Your task to perform on an android device: open app "AliExpress" (install if not already installed) and enter user name: "orangutan@inbox.com" and password: "Lyons" Image 0: 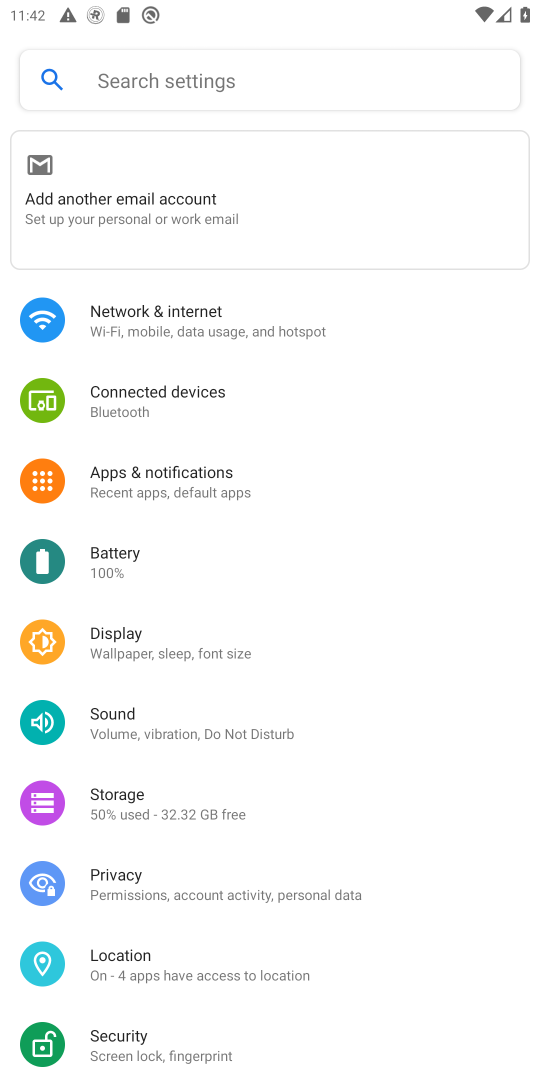
Step 0: press home button
Your task to perform on an android device: open app "AliExpress" (install if not already installed) and enter user name: "orangutan@inbox.com" and password: "Lyons" Image 1: 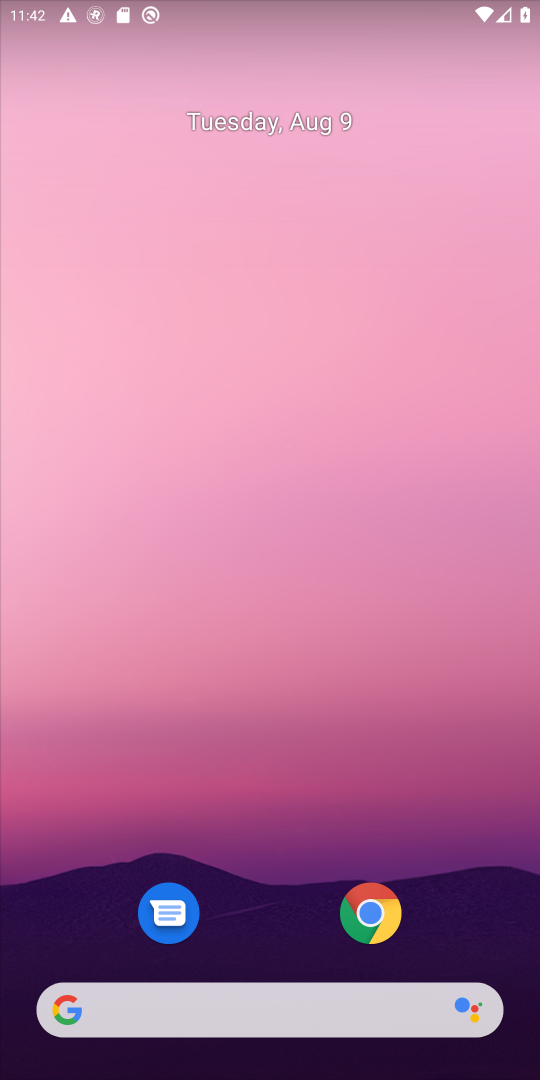
Step 1: drag from (267, 938) to (271, 393)
Your task to perform on an android device: open app "AliExpress" (install if not already installed) and enter user name: "orangutan@inbox.com" and password: "Lyons" Image 2: 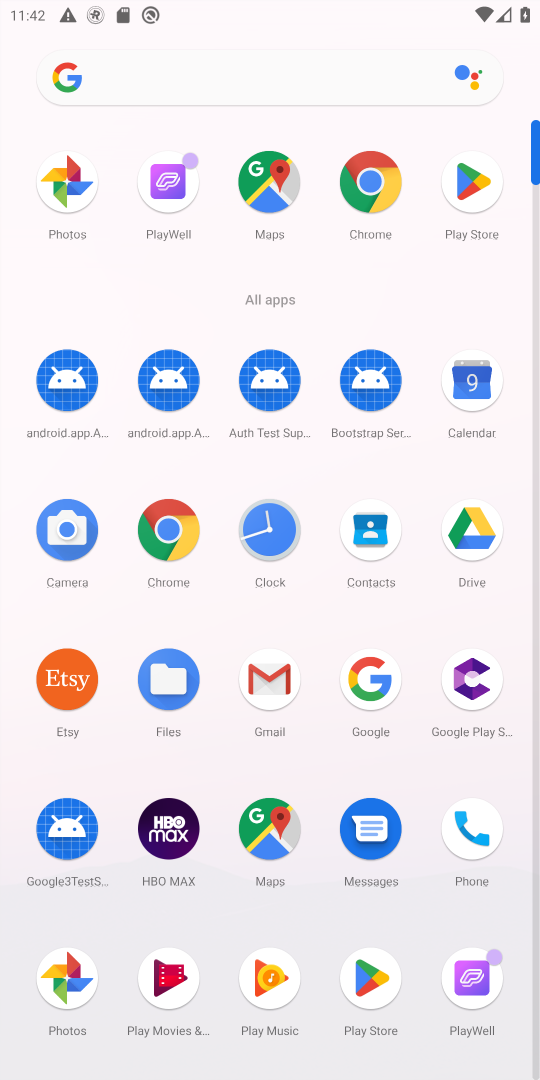
Step 2: click (459, 175)
Your task to perform on an android device: open app "AliExpress" (install if not already installed) and enter user name: "orangutan@inbox.com" and password: "Lyons" Image 3: 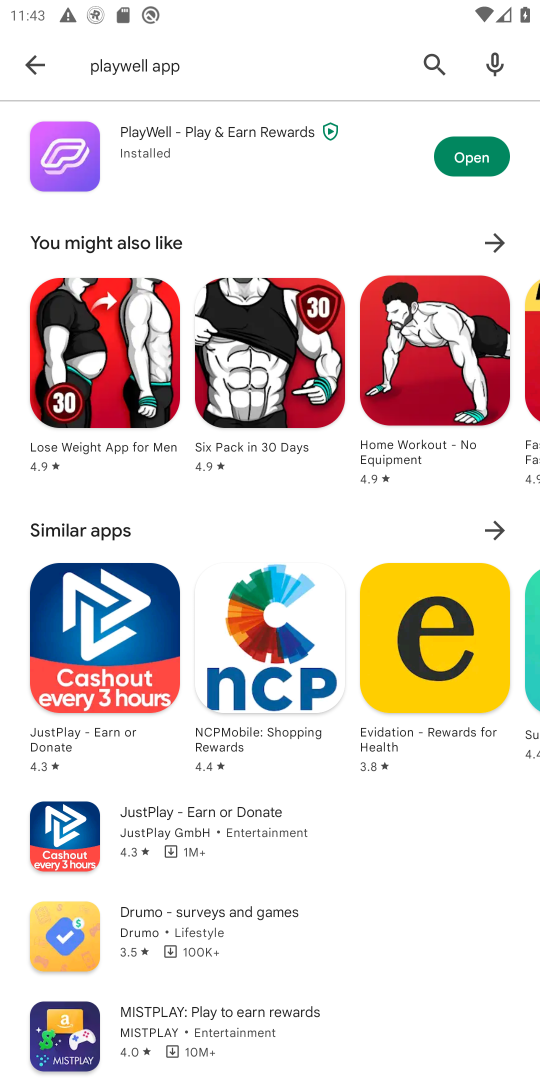
Step 3: click (27, 56)
Your task to perform on an android device: open app "AliExpress" (install if not already installed) and enter user name: "orangutan@inbox.com" and password: "Lyons" Image 4: 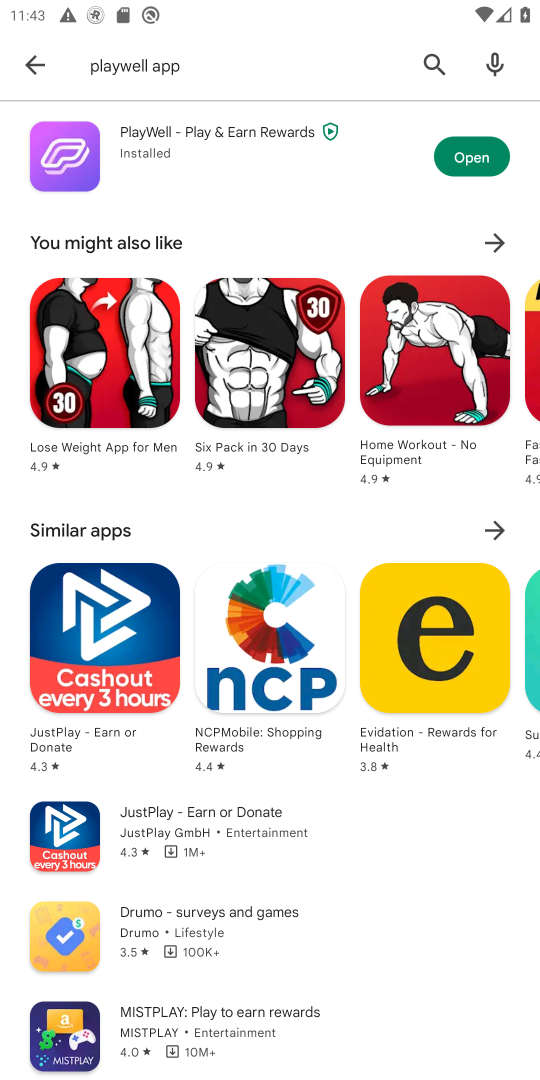
Step 4: click (22, 70)
Your task to perform on an android device: open app "AliExpress" (install if not already installed) and enter user name: "orangutan@inbox.com" and password: "Lyons" Image 5: 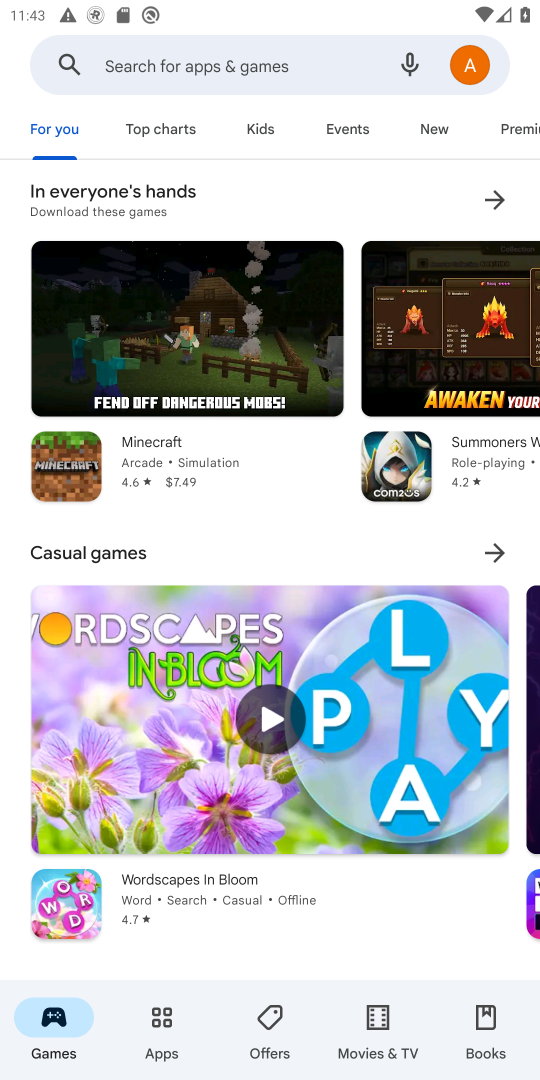
Step 5: click (222, 59)
Your task to perform on an android device: open app "AliExpress" (install if not already installed) and enter user name: "orangutan@inbox.com" and password: "Lyons" Image 6: 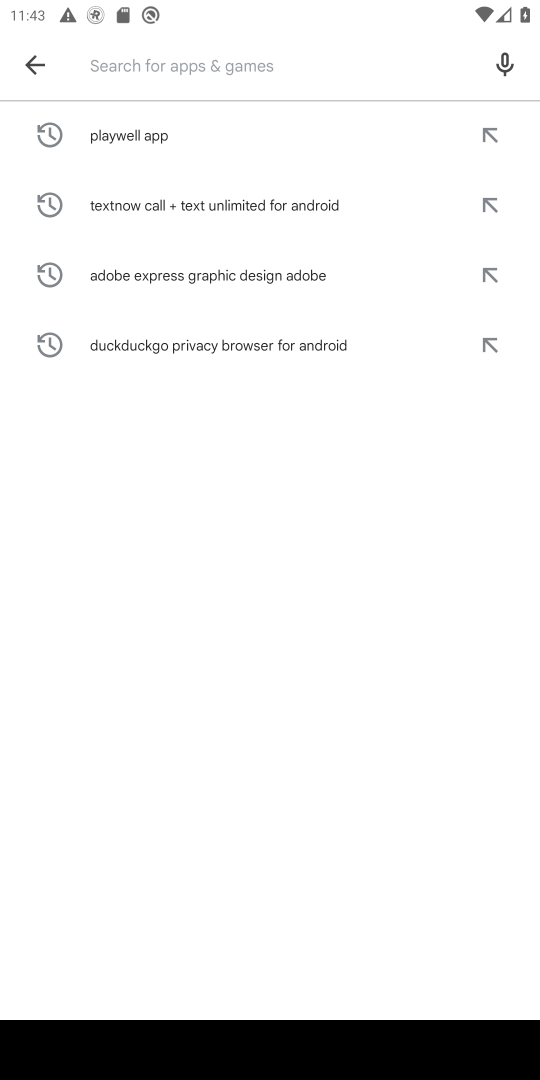
Step 6: type "AliExpress "
Your task to perform on an android device: open app "AliExpress" (install if not already installed) and enter user name: "orangutan@inbox.com" and password: "Lyons" Image 7: 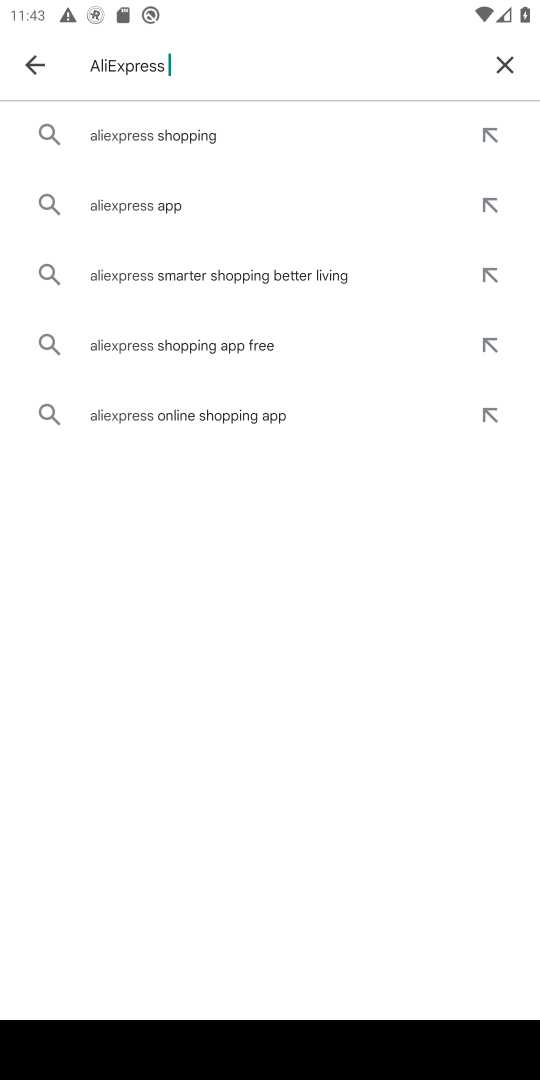
Step 7: click (149, 202)
Your task to perform on an android device: open app "AliExpress" (install if not already installed) and enter user name: "orangutan@inbox.com" and password: "Lyons" Image 8: 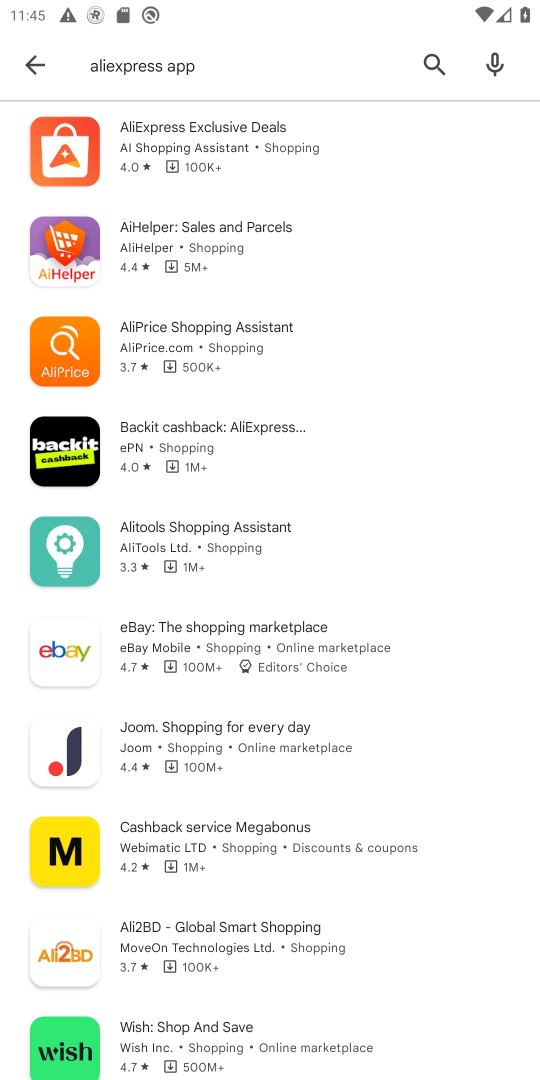
Step 8: click (161, 119)
Your task to perform on an android device: open app "AliExpress" (install if not already installed) and enter user name: "orangutan@inbox.com" and password: "Lyons" Image 9: 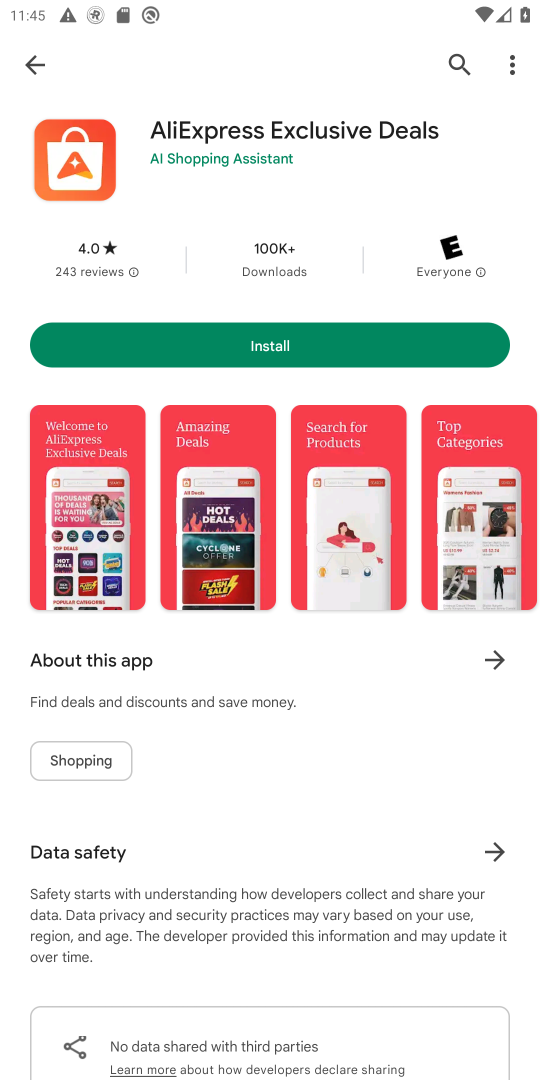
Step 9: click (357, 329)
Your task to perform on an android device: open app "AliExpress" (install if not already installed) and enter user name: "orangutan@inbox.com" and password: "Lyons" Image 10: 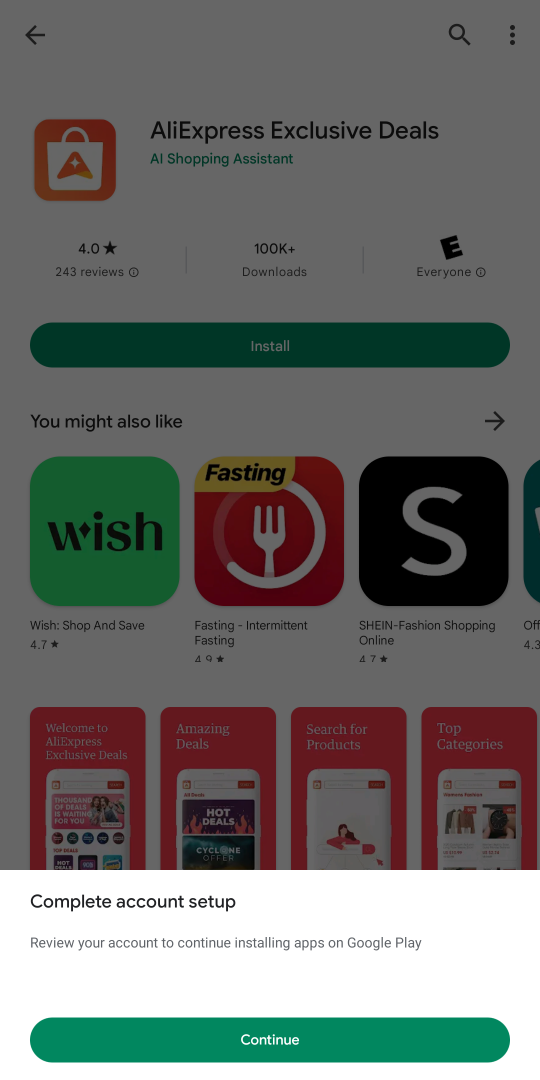
Step 10: task complete